Your task to perform on an android device: What is the news today? Image 0: 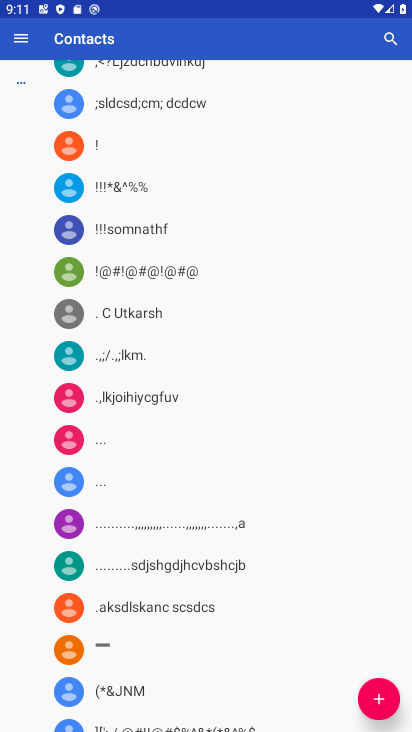
Step 0: press home button
Your task to perform on an android device: What is the news today? Image 1: 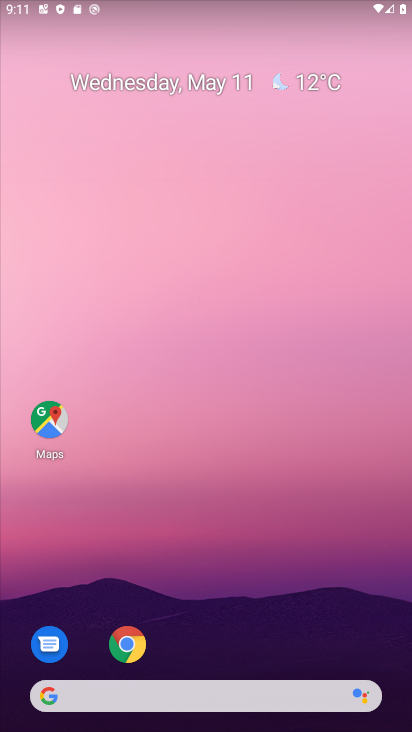
Step 1: click (133, 645)
Your task to perform on an android device: What is the news today? Image 2: 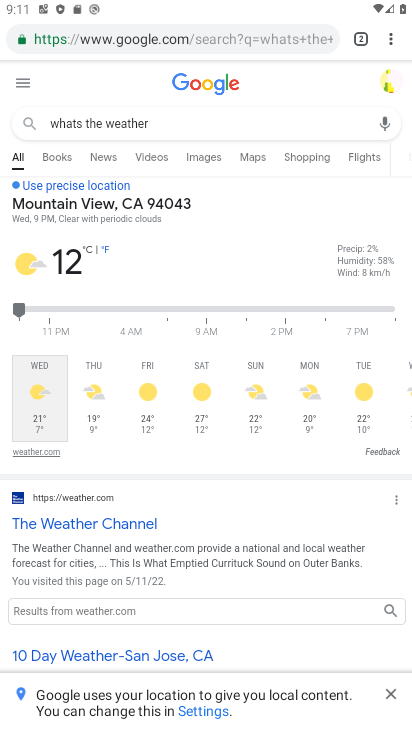
Step 2: click (301, 128)
Your task to perform on an android device: What is the news today? Image 3: 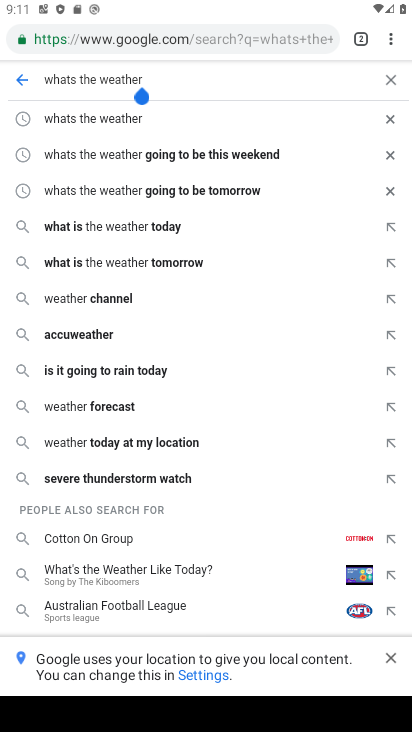
Step 3: click (389, 74)
Your task to perform on an android device: What is the news today? Image 4: 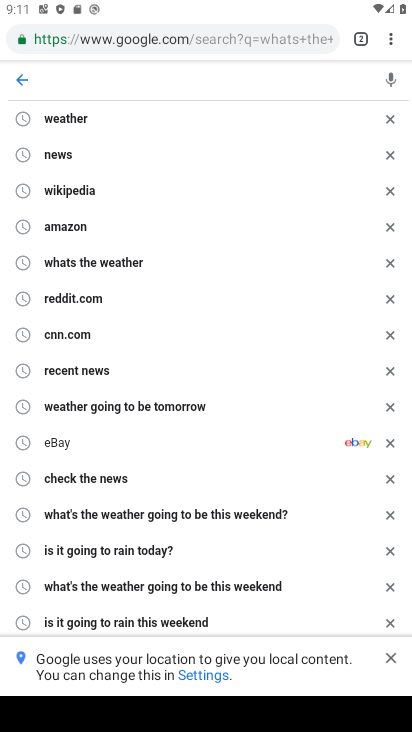
Step 4: drag from (179, 544) to (230, 72)
Your task to perform on an android device: What is the news today? Image 5: 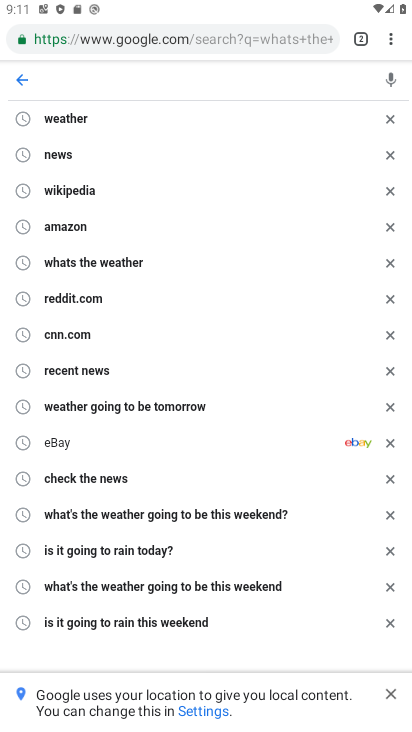
Step 5: click (227, 82)
Your task to perform on an android device: What is the news today? Image 6: 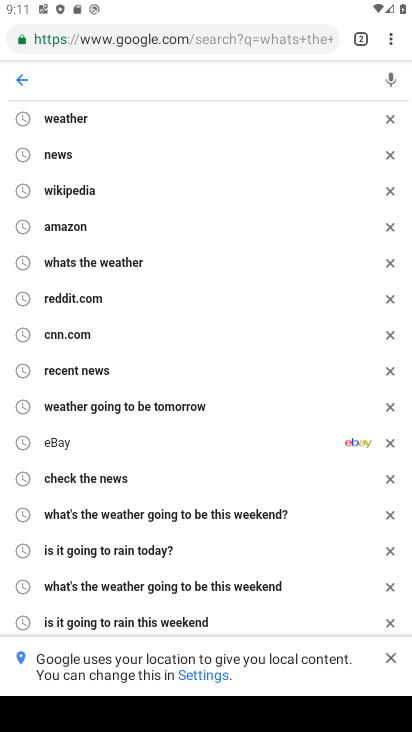
Step 6: type "what is the news today?"
Your task to perform on an android device: What is the news today? Image 7: 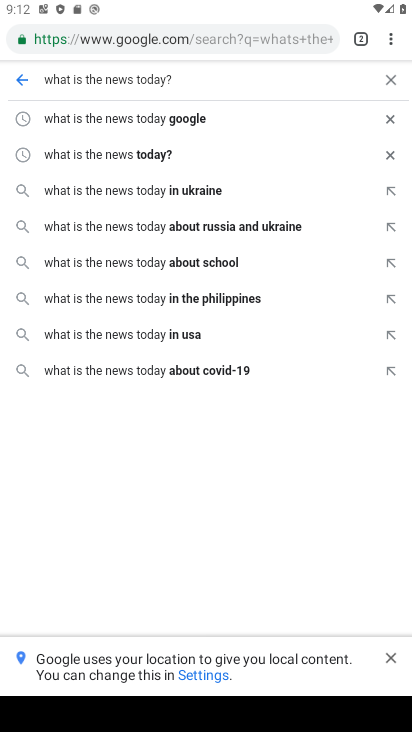
Step 7: click (135, 157)
Your task to perform on an android device: What is the news today? Image 8: 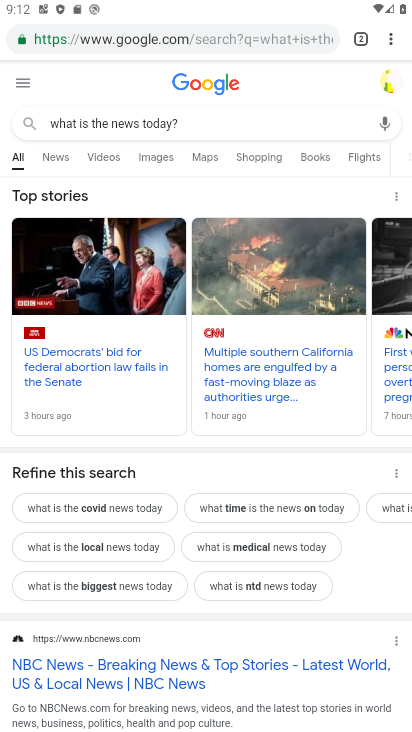
Step 8: task complete